Your task to perform on an android device: Open Google Image 0: 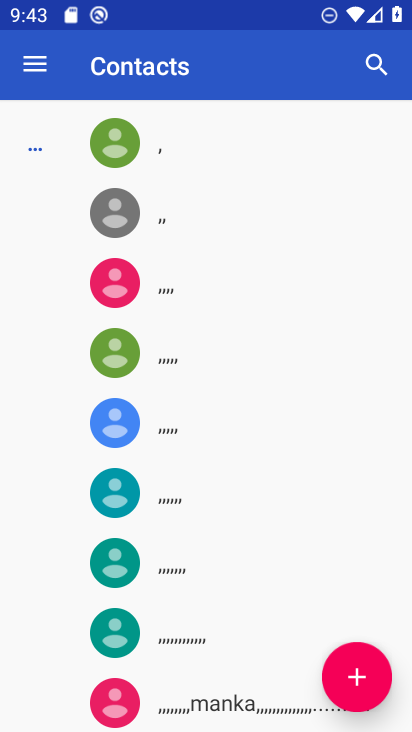
Step 0: press home button
Your task to perform on an android device: Open Google Image 1: 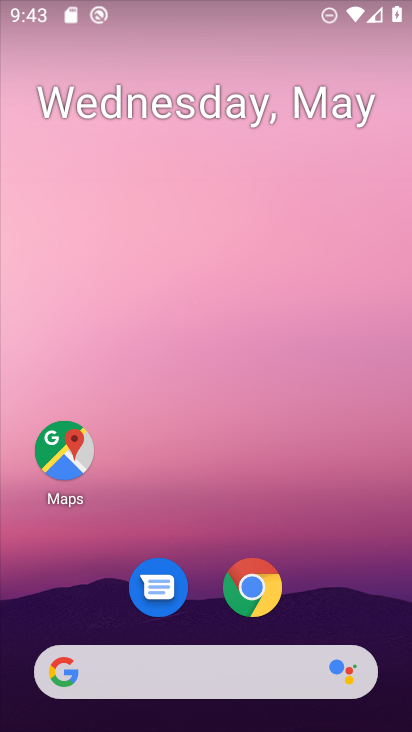
Step 1: drag from (218, 725) to (171, 239)
Your task to perform on an android device: Open Google Image 2: 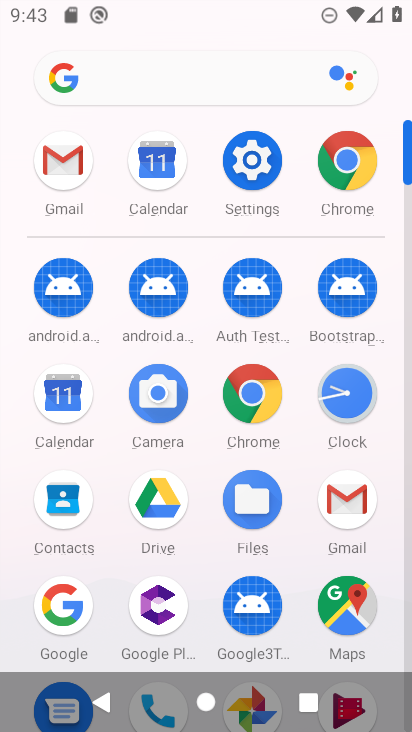
Step 2: click (54, 599)
Your task to perform on an android device: Open Google Image 3: 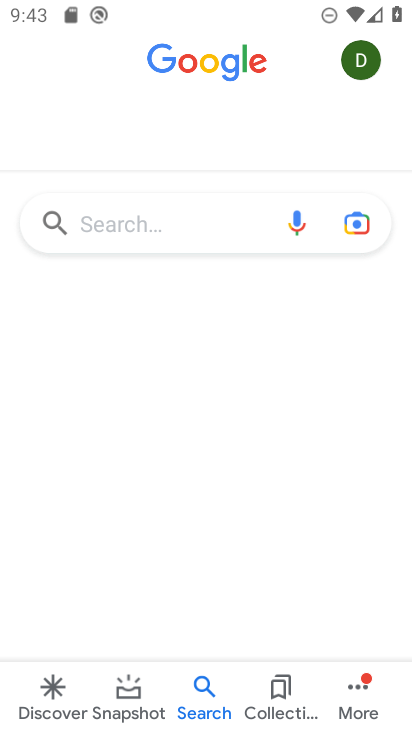
Step 3: task complete